Your task to perform on an android device: see tabs open on other devices in the chrome app Image 0: 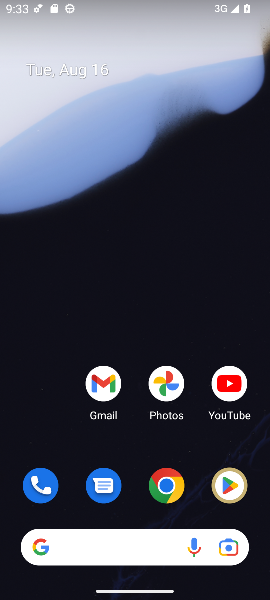
Step 0: click (167, 485)
Your task to perform on an android device: see tabs open on other devices in the chrome app Image 1: 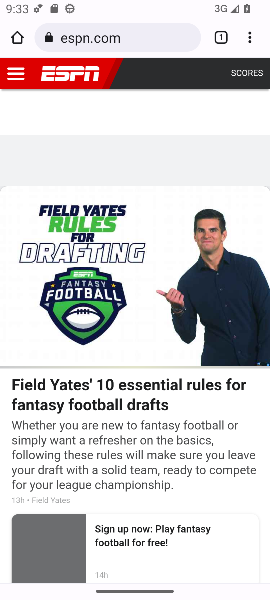
Step 1: click (248, 34)
Your task to perform on an android device: see tabs open on other devices in the chrome app Image 2: 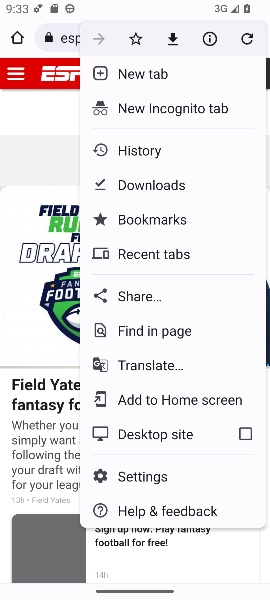
Step 2: click (160, 260)
Your task to perform on an android device: see tabs open on other devices in the chrome app Image 3: 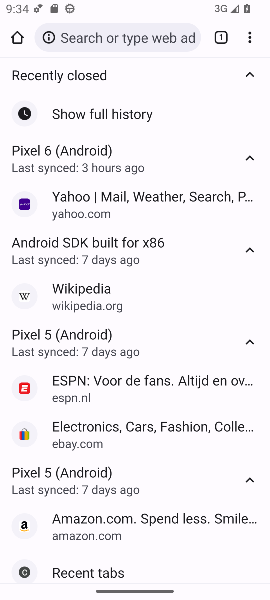
Step 3: task complete